Your task to perform on an android device: Open display settings Image 0: 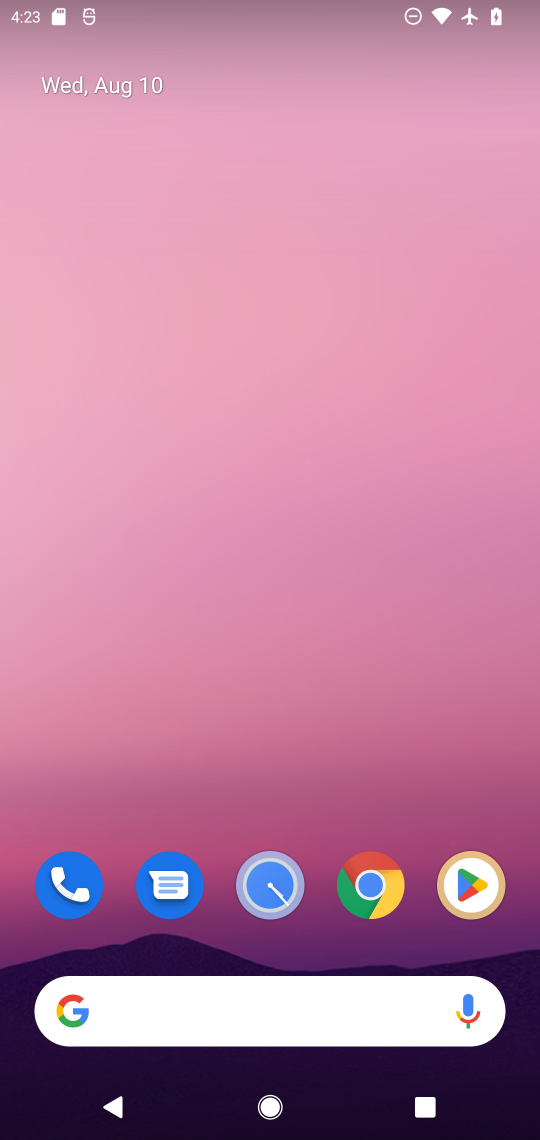
Step 0: drag from (309, 943) to (292, 251)
Your task to perform on an android device: Open display settings Image 1: 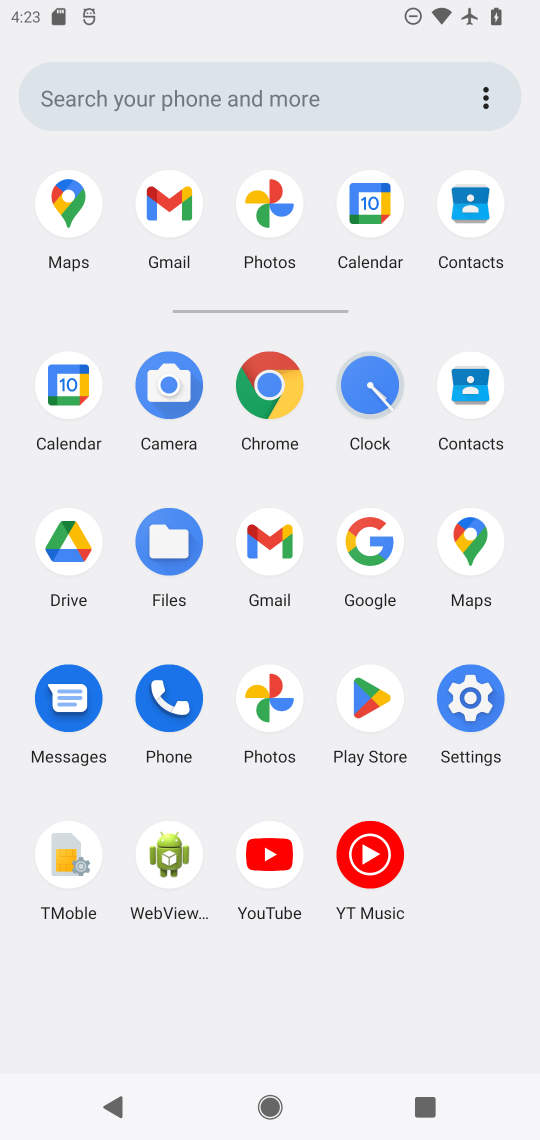
Step 1: click (473, 696)
Your task to perform on an android device: Open display settings Image 2: 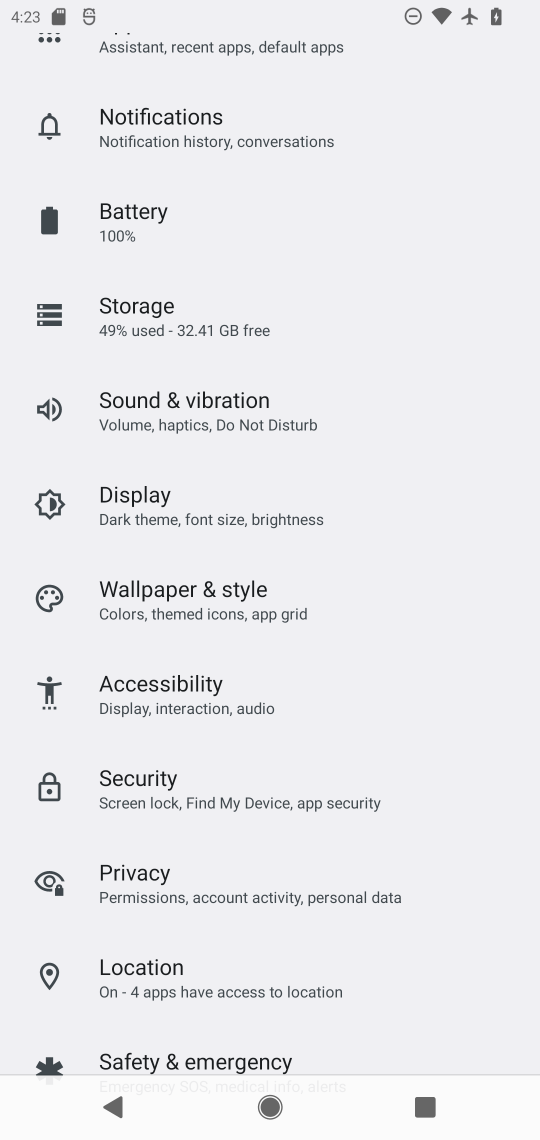
Step 2: click (127, 486)
Your task to perform on an android device: Open display settings Image 3: 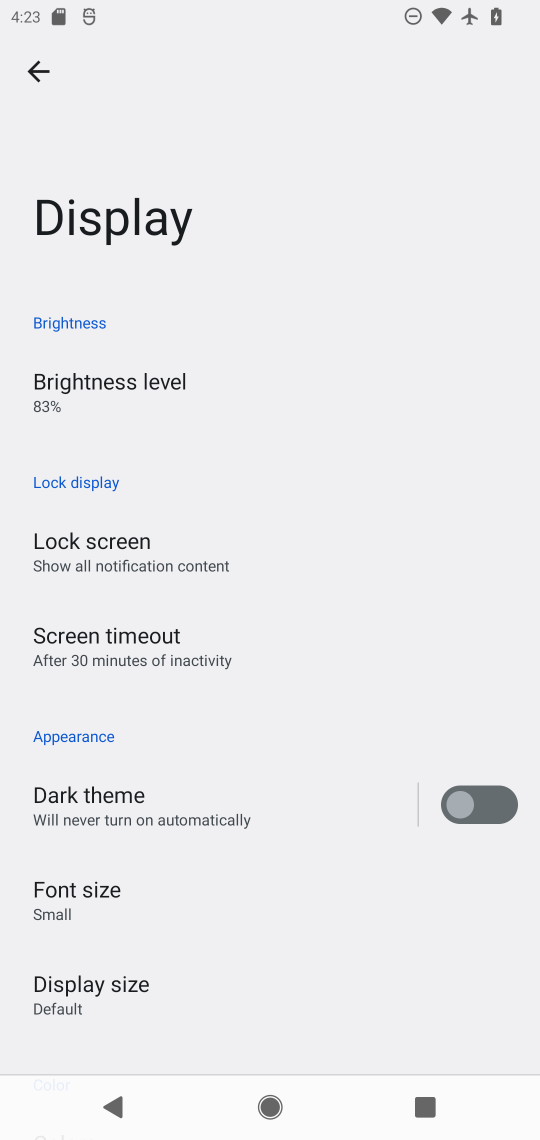
Step 3: task complete